Your task to perform on an android device: toggle data saver in the chrome app Image 0: 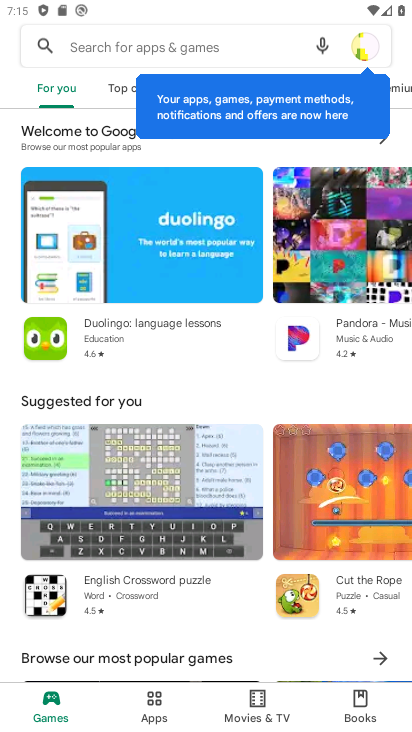
Step 0: press home button
Your task to perform on an android device: toggle data saver in the chrome app Image 1: 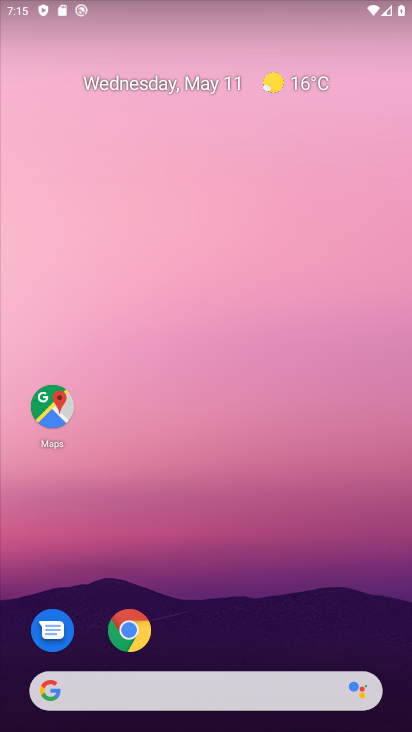
Step 1: drag from (295, 593) to (412, 52)
Your task to perform on an android device: toggle data saver in the chrome app Image 2: 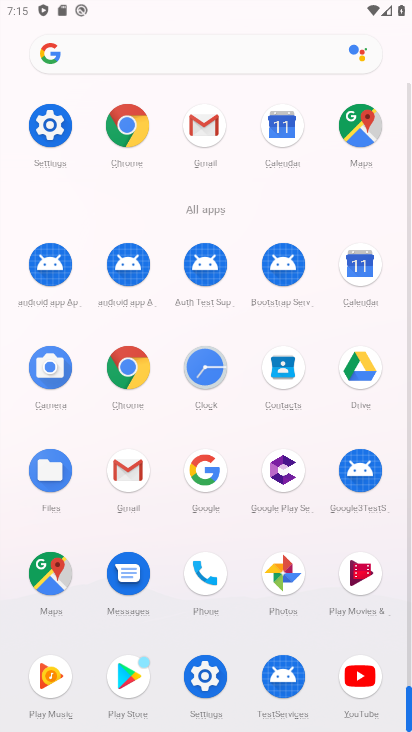
Step 2: click (138, 123)
Your task to perform on an android device: toggle data saver in the chrome app Image 3: 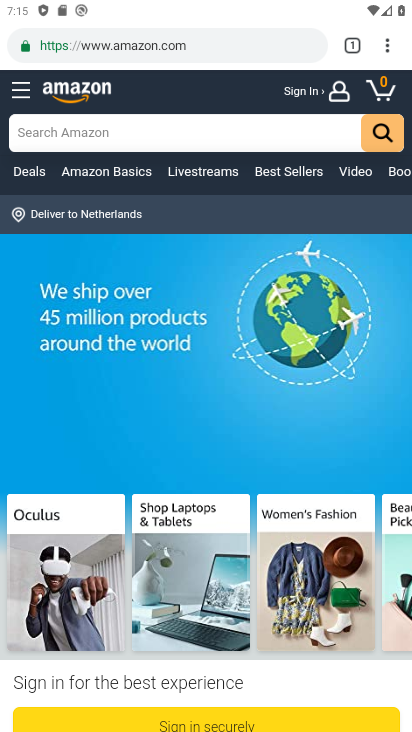
Step 3: drag from (382, 48) to (249, 556)
Your task to perform on an android device: toggle data saver in the chrome app Image 4: 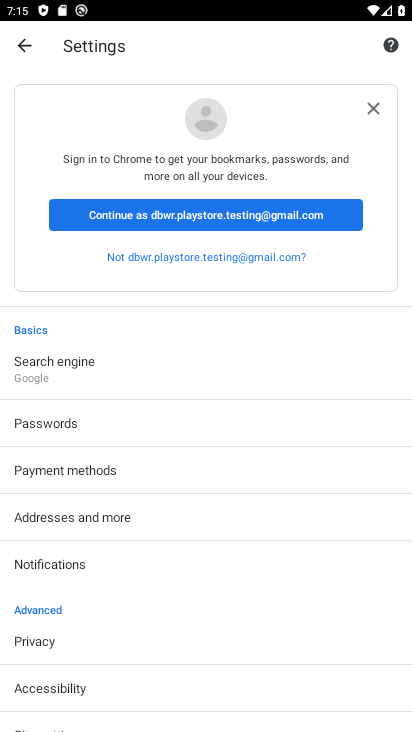
Step 4: drag from (145, 646) to (281, 154)
Your task to perform on an android device: toggle data saver in the chrome app Image 5: 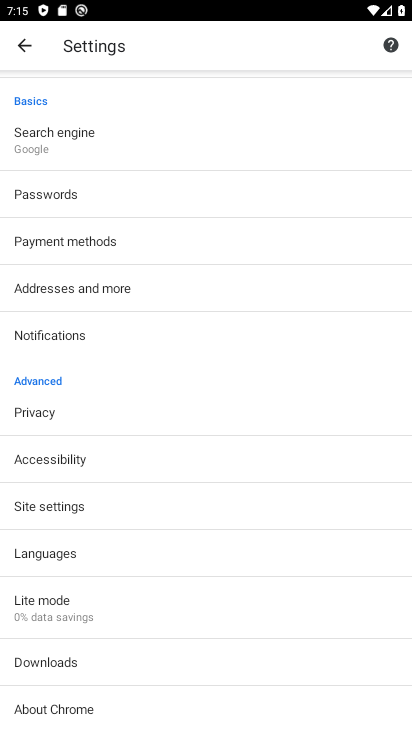
Step 5: click (97, 596)
Your task to perform on an android device: toggle data saver in the chrome app Image 6: 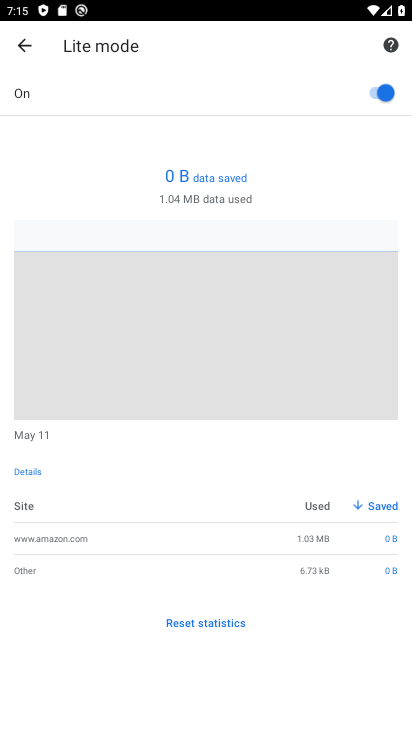
Step 6: click (387, 98)
Your task to perform on an android device: toggle data saver in the chrome app Image 7: 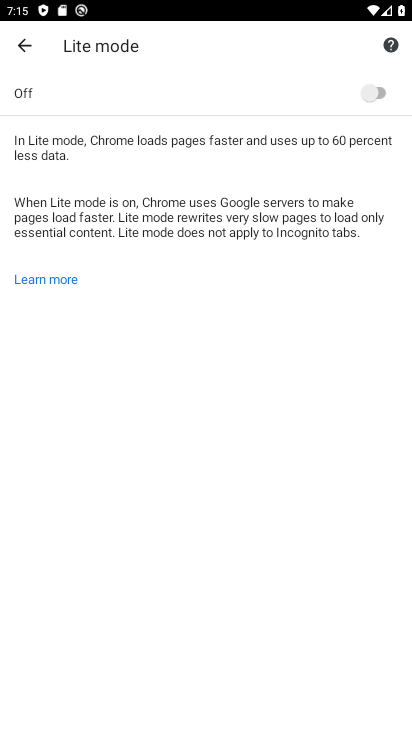
Step 7: task complete